Your task to perform on an android device: Go to network settings Image 0: 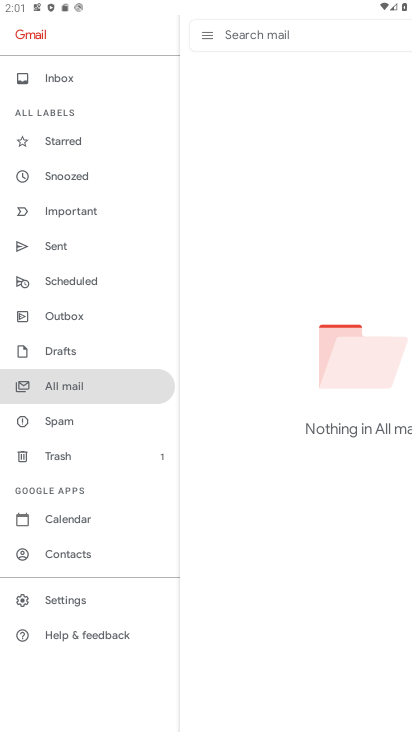
Step 0: press home button
Your task to perform on an android device: Go to network settings Image 1: 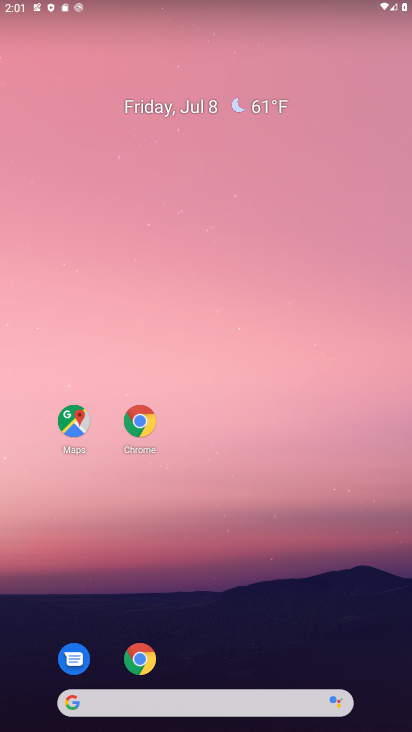
Step 1: drag from (198, 699) to (142, 57)
Your task to perform on an android device: Go to network settings Image 2: 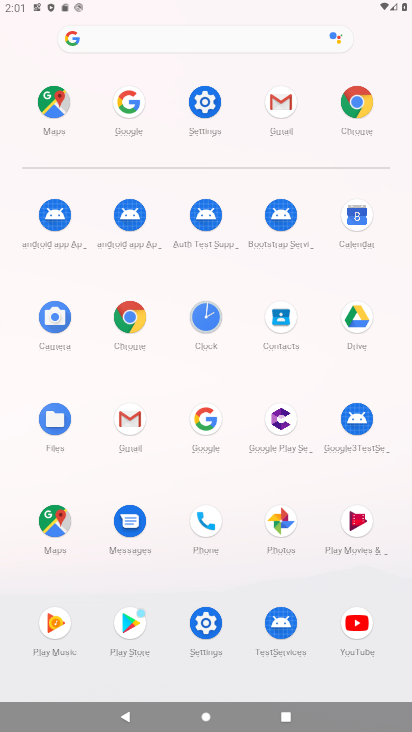
Step 2: click (202, 110)
Your task to perform on an android device: Go to network settings Image 3: 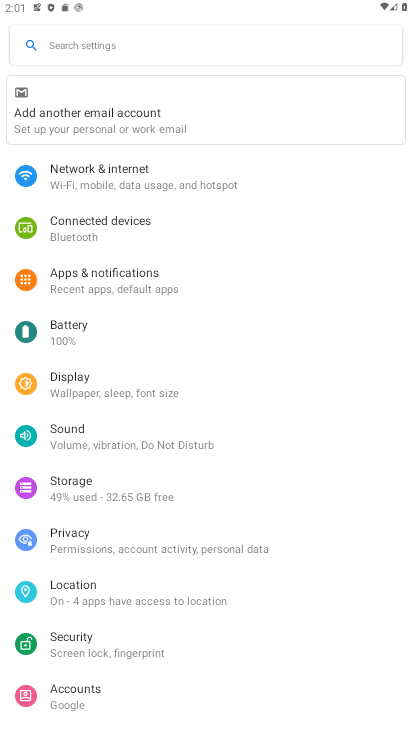
Step 3: click (53, 186)
Your task to perform on an android device: Go to network settings Image 4: 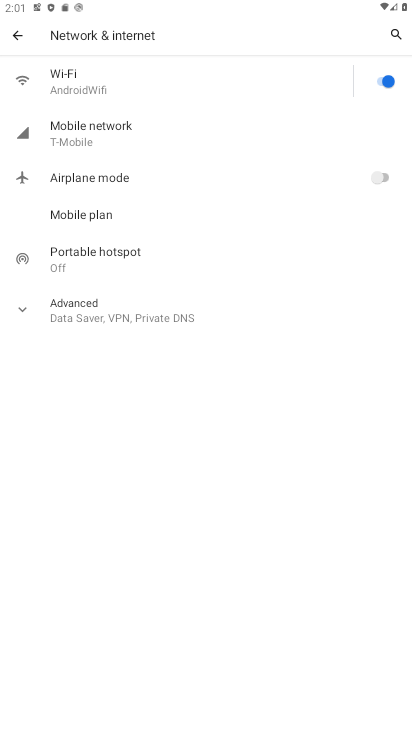
Step 4: click (60, 127)
Your task to perform on an android device: Go to network settings Image 5: 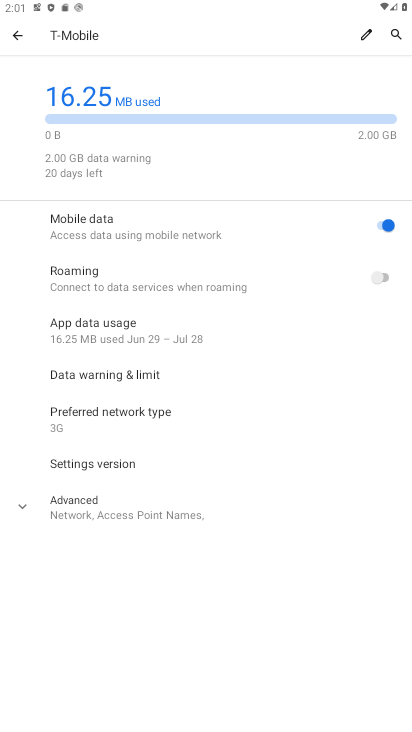
Step 5: task complete